Your task to perform on an android device: Open accessibility settings Image 0: 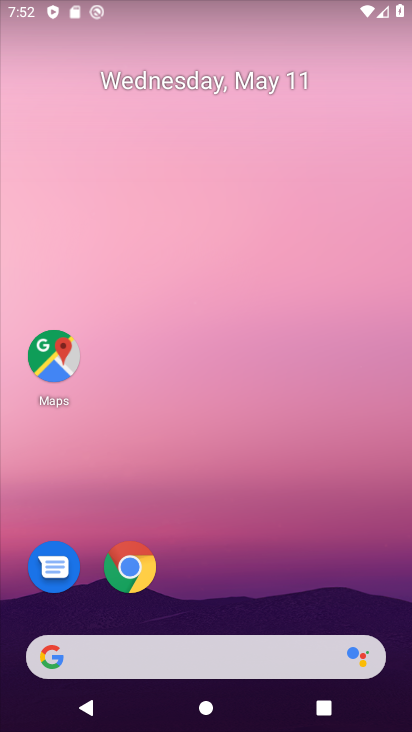
Step 0: drag from (234, 619) to (335, 128)
Your task to perform on an android device: Open accessibility settings Image 1: 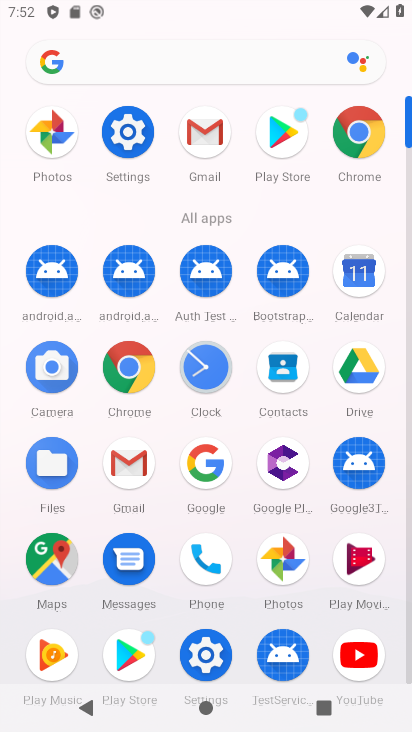
Step 1: click (128, 147)
Your task to perform on an android device: Open accessibility settings Image 2: 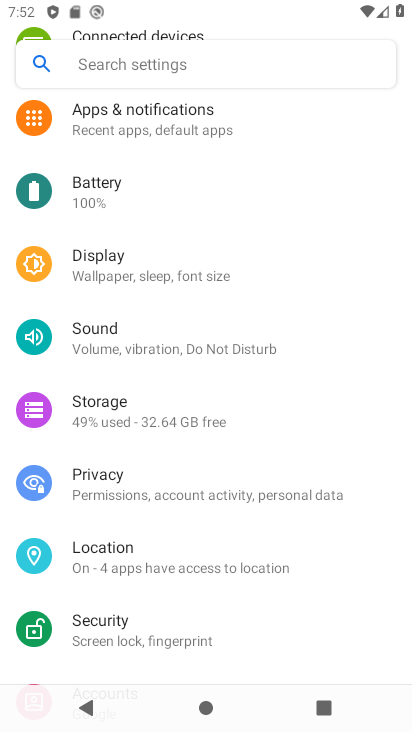
Step 2: drag from (111, 562) to (158, 237)
Your task to perform on an android device: Open accessibility settings Image 3: 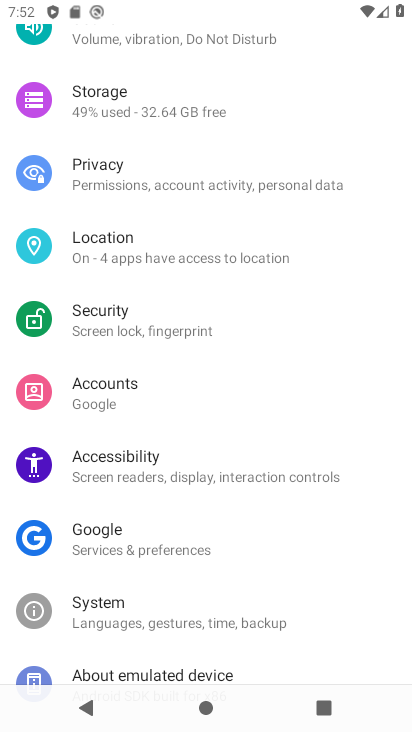
Step 3: click (132, 476)
Your task to perform on an android device: Open accessibility settings Image 4: 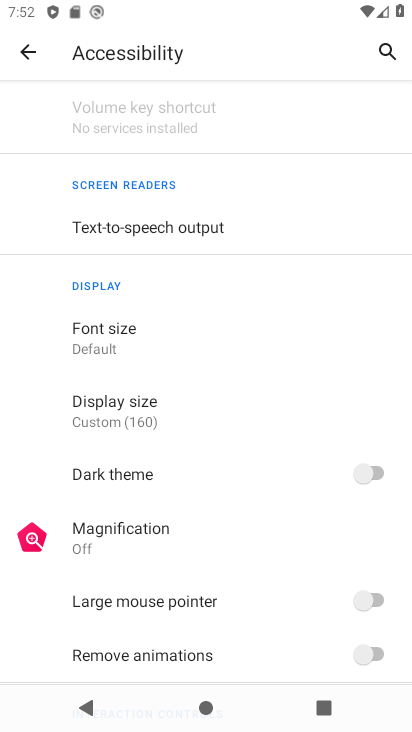
Step 4: task complete